Your task to perform on an android device: set default search engine in the chrome app Image 0: 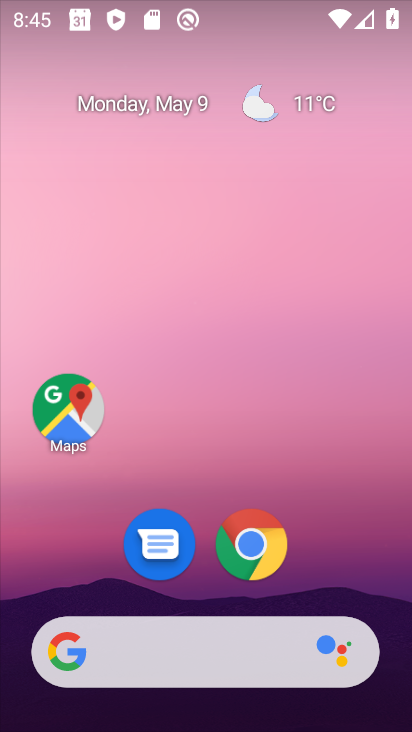
Step 0: click (250, 532)
Your task to perform on an android device: set default search engine in the chrome app Image 1: 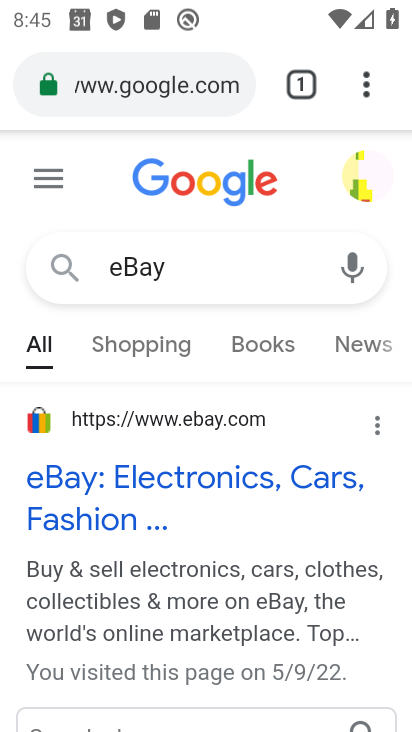
Step 1: click (312, 668)
Your task to perform on an android device: set default search engine in the chrome app Image 2: 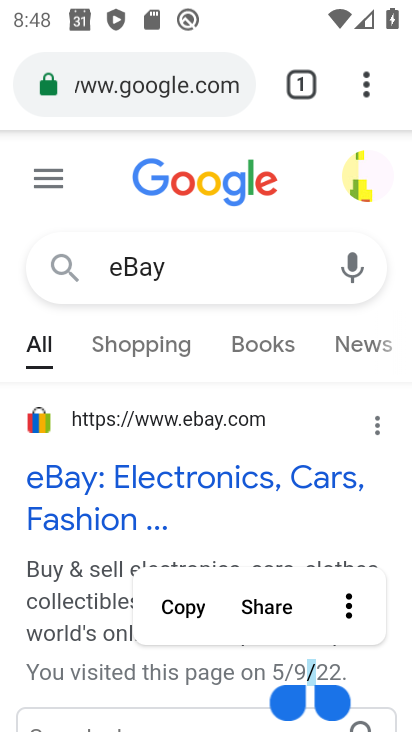
Step 2: press home button
Your task to perform on an android device: set default search engine in the chrome app Image 3: 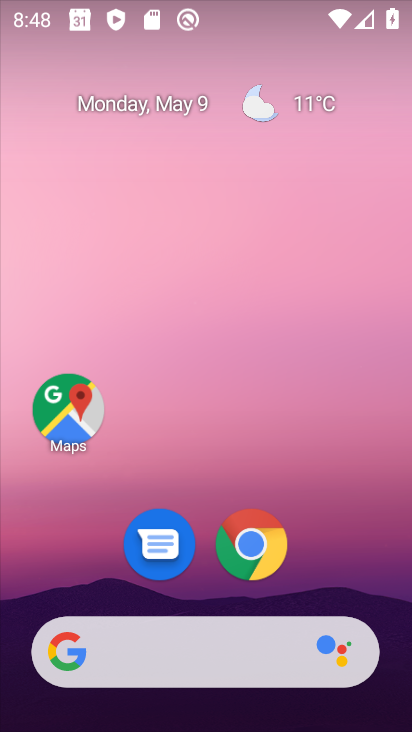
Step 3: click (259, 547)
Your task to perform on an android device: set default search engine in the chrome app Image 4: 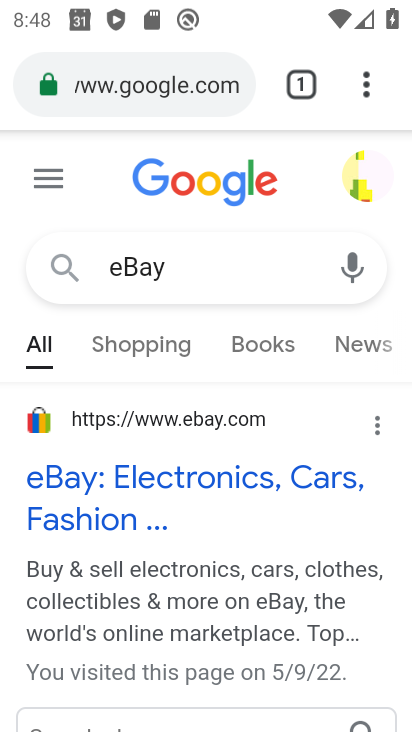
Step 4: click (363, 81)
Your task to perform on an android device: set default search engine in the chrome app Image 5: 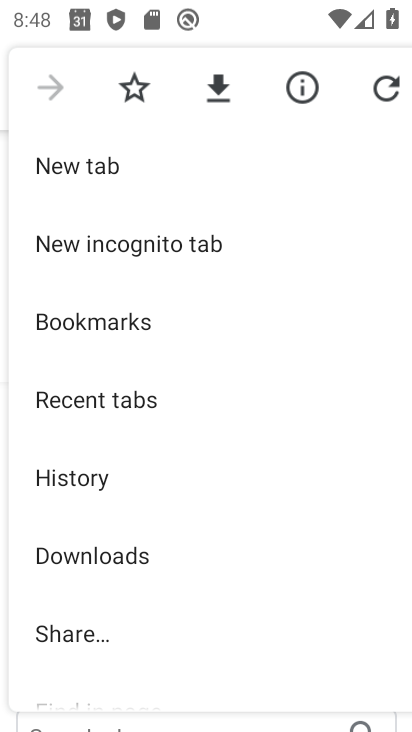
Step 5: drag from (256, 617) to (345, 299)
Your task to perform on an android device: set default search engine in the chrome app Image 6: 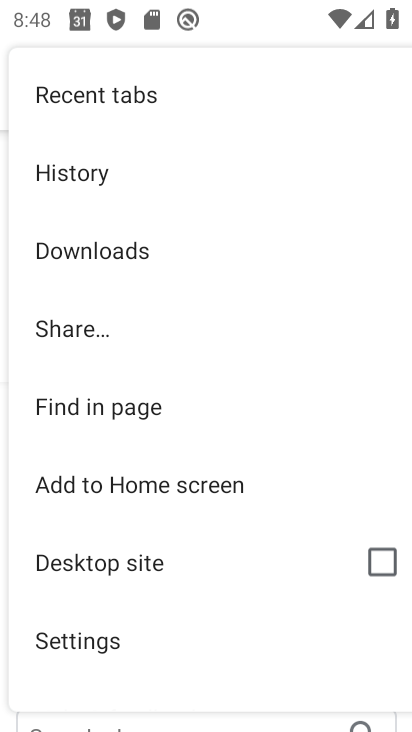
Step 6: click (86, 631)
Your task to perform on an android device: set default search engine in the chrome app Image 7: 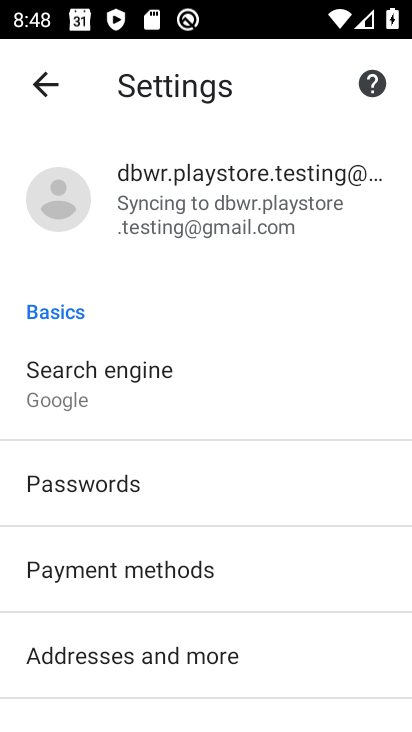
Step 7: click (84, 381)
Your task to perform on an android device: set default search engine in the chrome app Image 8: 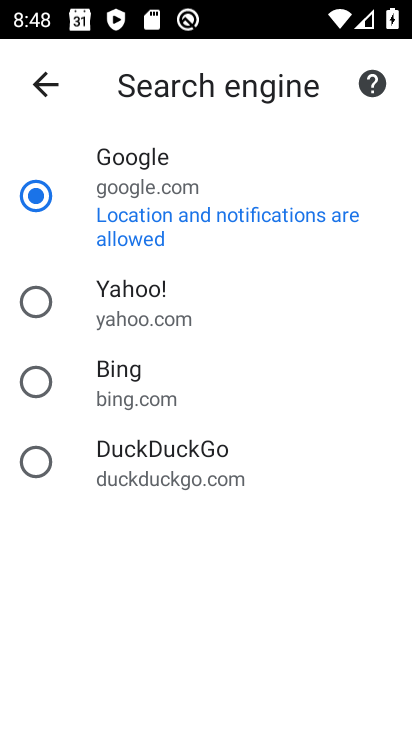
Step 8: task complete